Your task to perform on an android device: turn off javascript in the chrome app Image 0: 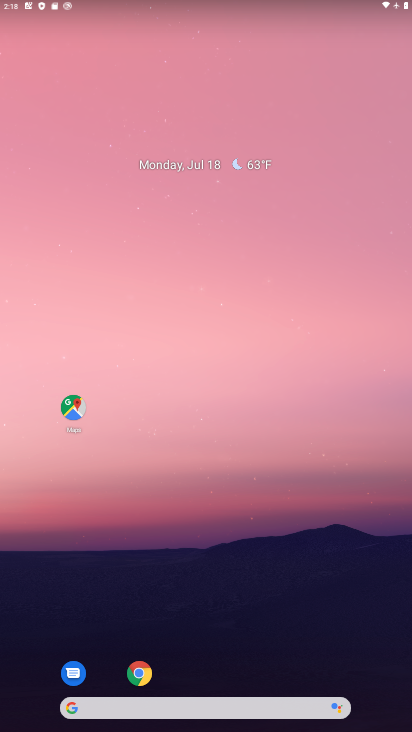
Step 0: drag from (247, 673) to (244, 89)
Your task to perform on an android device: turn off javascript in the chrome app Image 1: 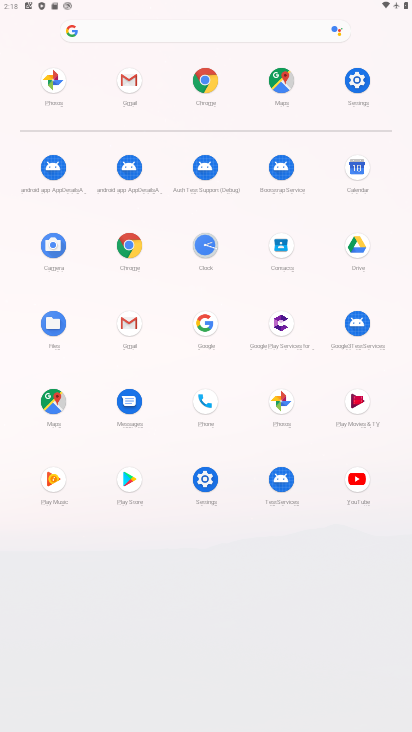
Step 1: click (350, 64)
Your task to perform on an android device: turn off javascript in the chrome app Image 2: 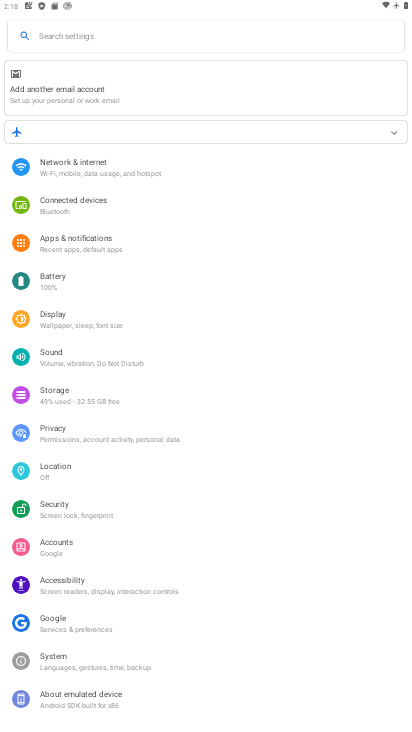
Step 2: press home button
Your task to perform on an android device: turn off javascript in the chrome app Image 3: 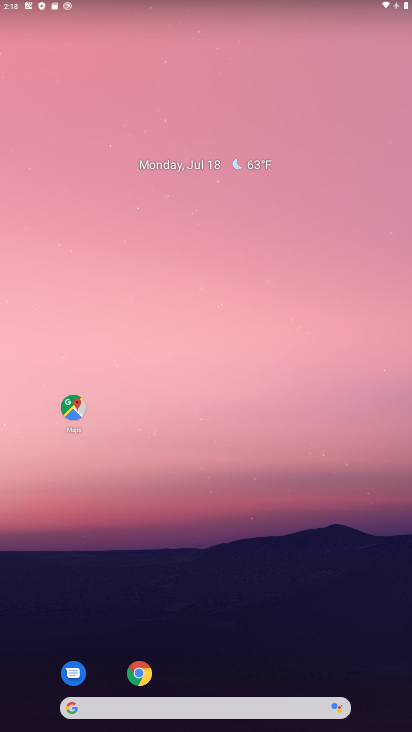
Step 3: drag from (254, 648) to (223, 125)
Your task to perform on an android device: turn off javascript in the chrome app Image 4: 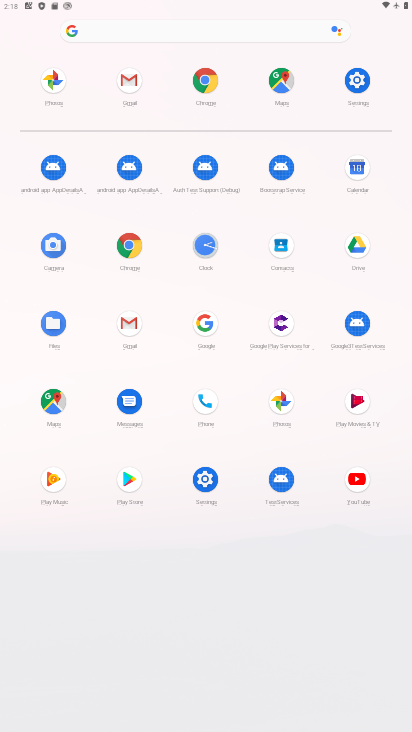
Step 4: click (214, 84)
Your task to perform on an android device: turn off javascript in the chrome app Image 5: 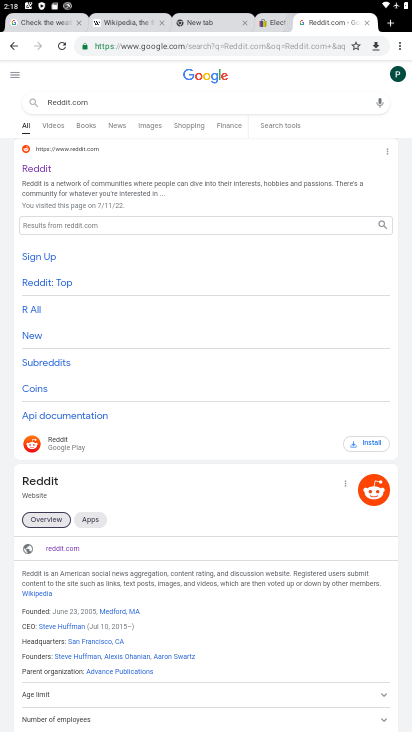
Step 5: click (403, 51)
Your task to perform on an android device: turn off javascript in the chrome app Image 6: 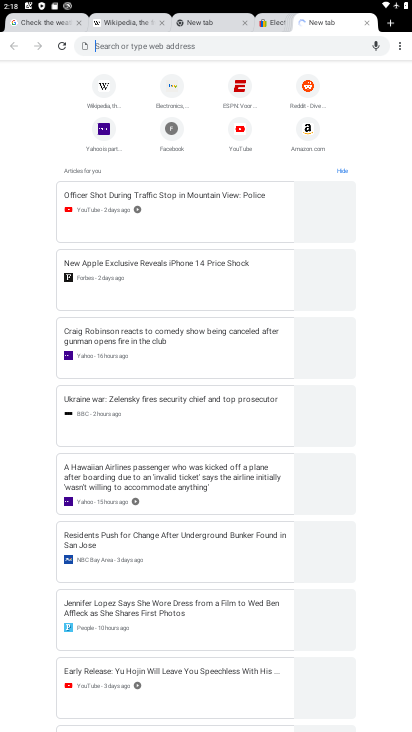
Step 6: click (403, 48)
Your task to perform on an android device: turn off javascript in the chrome app Image 7: 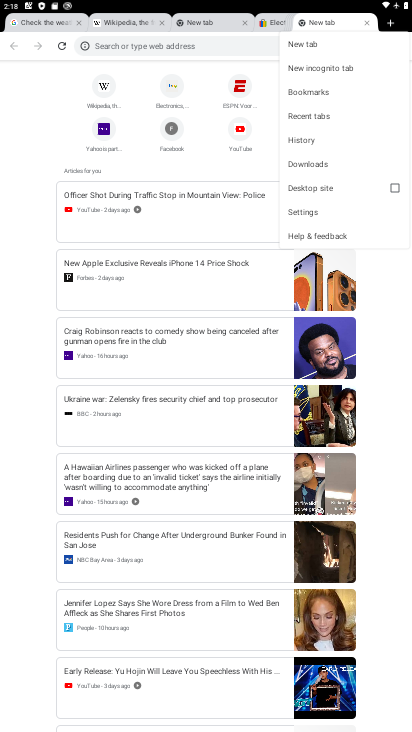
Step 7: click (311, 213)
Your task to perform on an android device: turn off javascript in the chrome app Image 8: 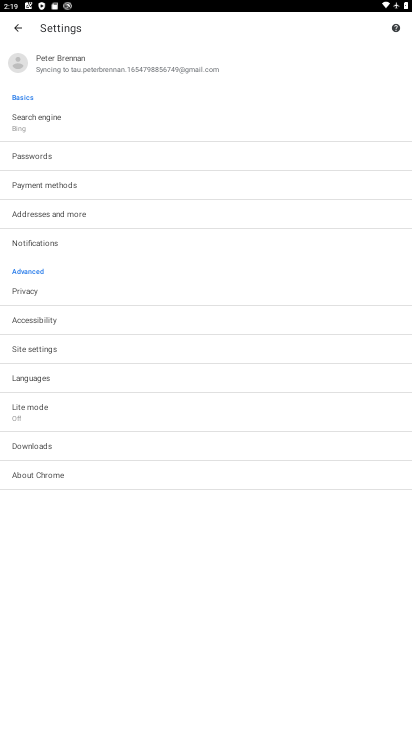
Step 8: click (50, 351)
Your task to perform on an android device: turn off javascript in the chrome app Image 9: 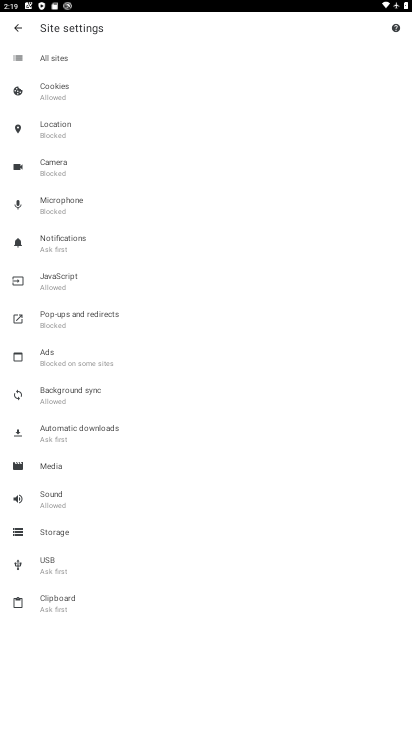
Step 9: click (72, 277)
Your task to perform on an android device: turn off javascript in the chrome app Image 10: 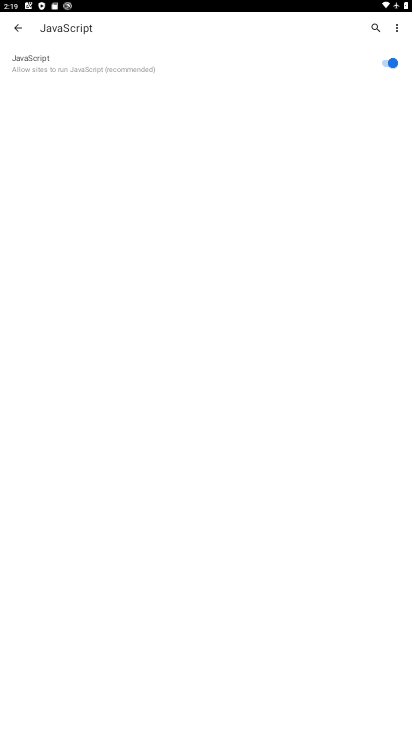
Step 10: click (395, 52)
Your task to perform on an android device: turn off javascript in the chrome app Image 11: 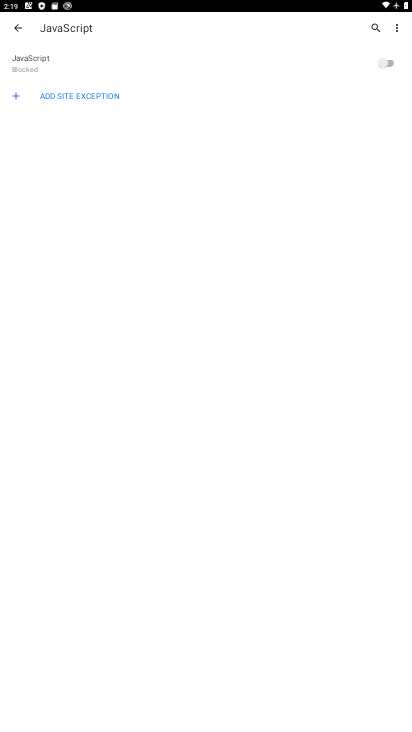
Step 11: task complete